Your task to perform on an android device: Open accessibility settings Image 0: 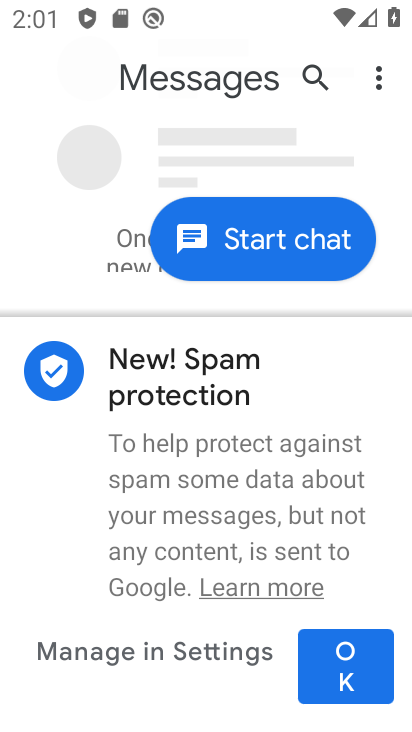
Step 0: press back button
Your task to perform on an android device: Open accessibility settings Image 1: 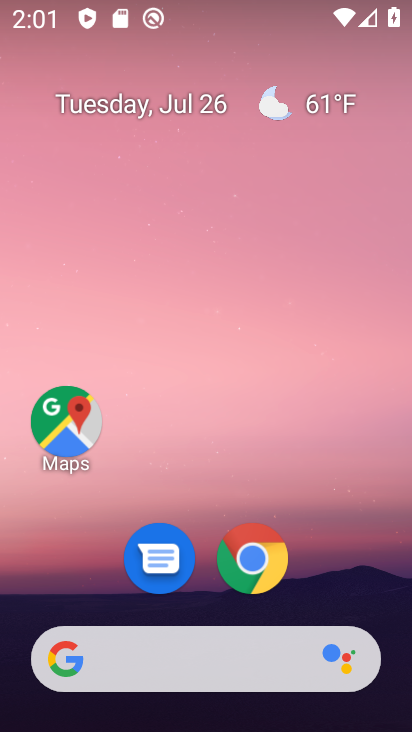
Step 1: drag from (101, 585) to (250, 45)
Your task to perform on an android device: Open accessibility settings Image 2: 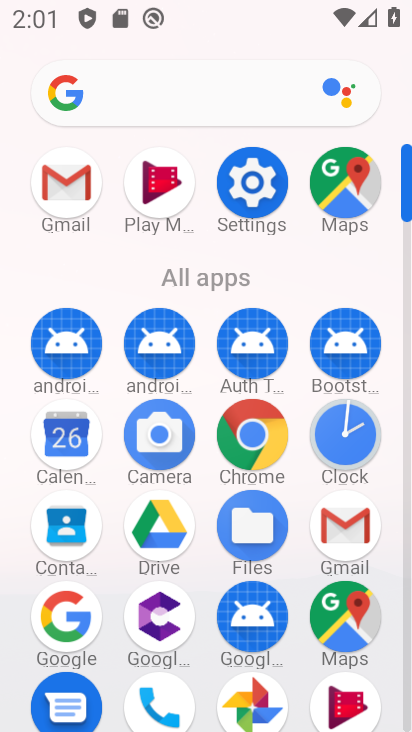
Step 2: click (259, 184)
Your task to perform on an android device: Open accessibility settings Image 3: 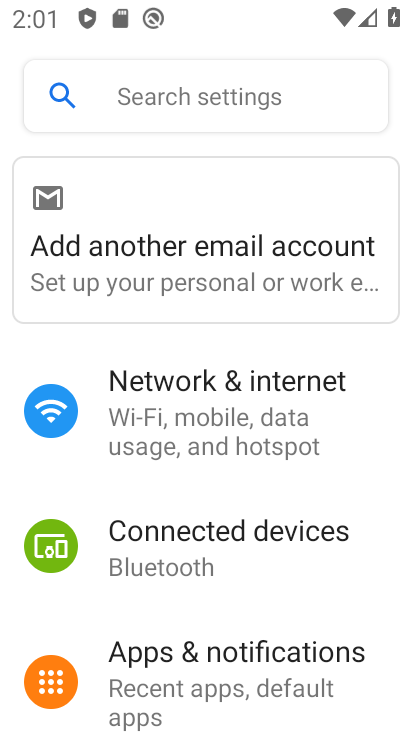
Step 3: drag from (166, 600) to (307, 185)
Your task to perform on an android device: Open accessibility settings Image 4: 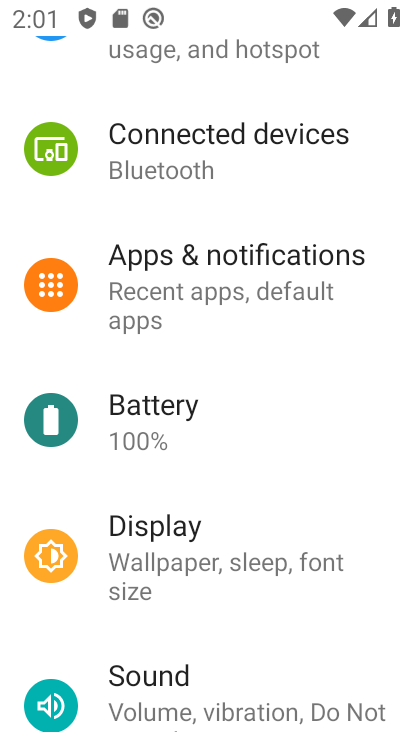
Step 4: drag from (214, 677) to (330, 88)
Your task to perform on an android device: Open accessibility settings Image 5: 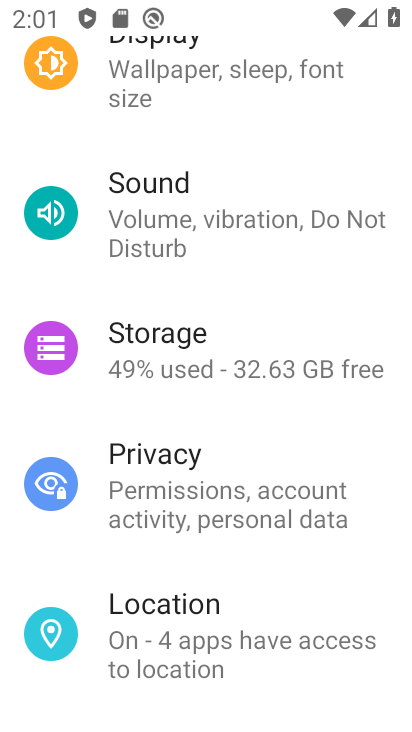
Step 5: drag from (193, 651) to (318, 86)
Your task to perform on an android device: Open accessibility settings Image 6: 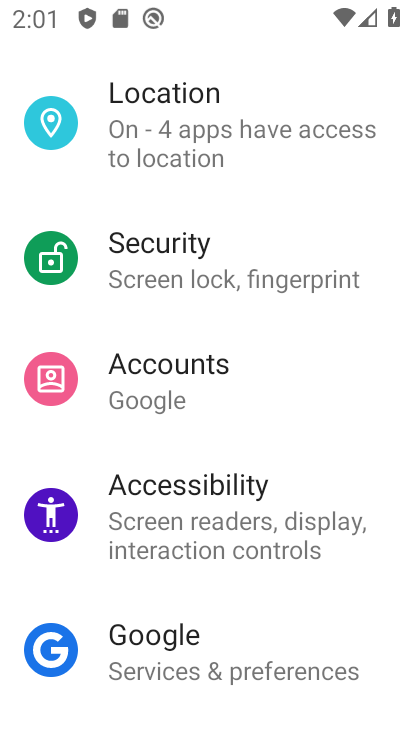
Step 6: click (190, 530)
Your task to perform on an android device: Open accessibility settings Image 7: 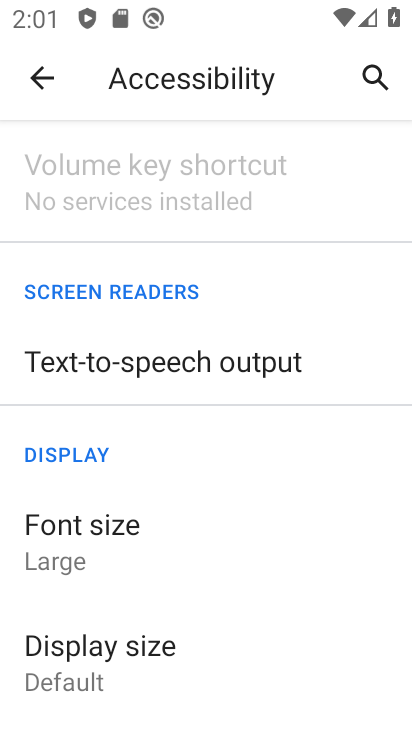
Step 7: task complete